Your task to perform on an android device: change alarm snooze length Image 0: 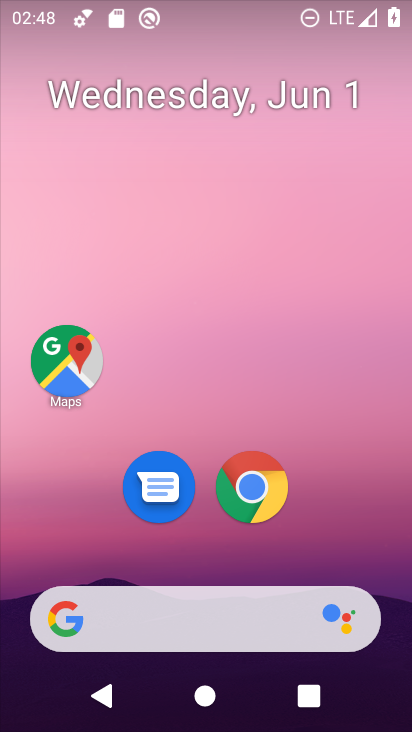
Step 0: drag from (276, 523) to (278, 29)
Your task to perform on an android device: change alarm snooze length Image 1: 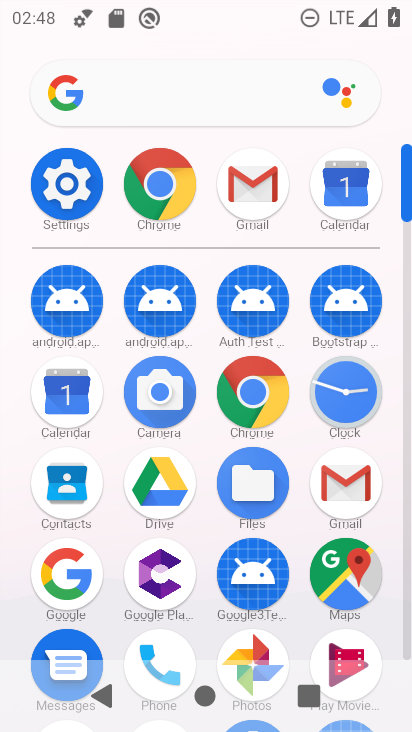
Step 1: click (341, 382)
Your task to perform on an android device: change alarm snooze length Image 2: 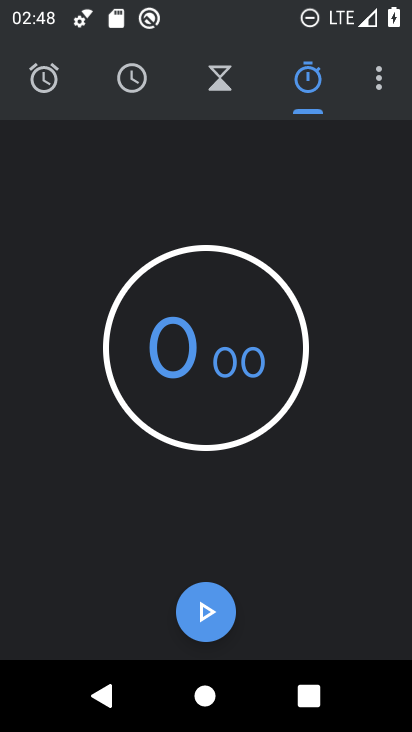
Step 2: click (364, 80)
Your task to perform on an android device: change alarm snooze length Image 3: 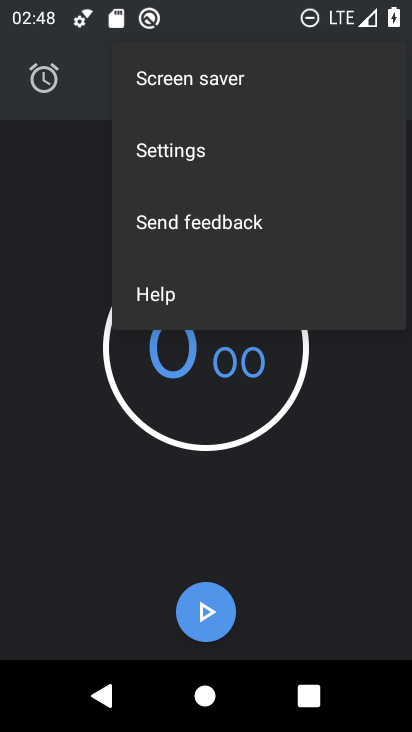
Step 3: click (220, 153)
Your task to perform on an android device: change alarm snooze length Image 4: 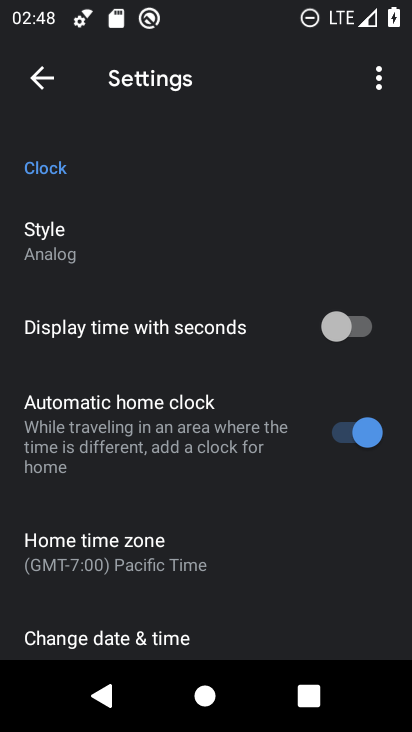
Step 4: drag from (189, 608) to (274, 198)
Your task to perform on an android device: change alarm snooze length Image 5: 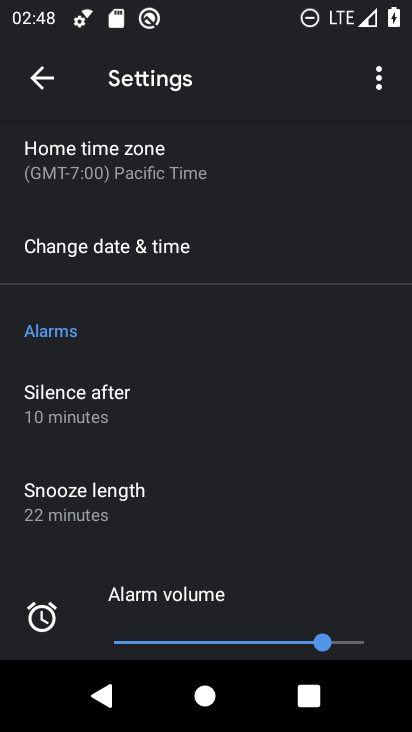
Step 5: click (118, 493)
Your task to perform on an android device: change alarm snooze length Image 6: 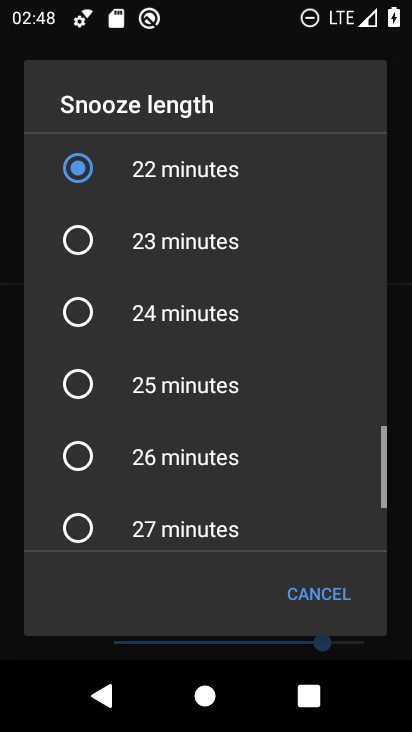
Step 6: click (185, 382)
Your task to perform on an android device: change alarm snooze length Image 7: 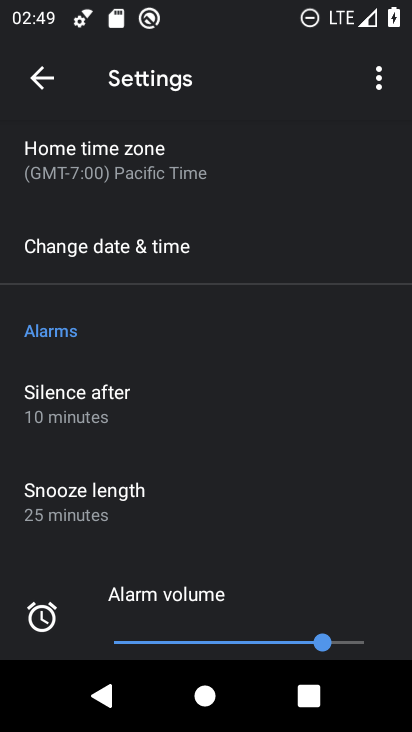
Step 7: task complete